Your task to perform on an android device: toggle sleep mode Image 0: 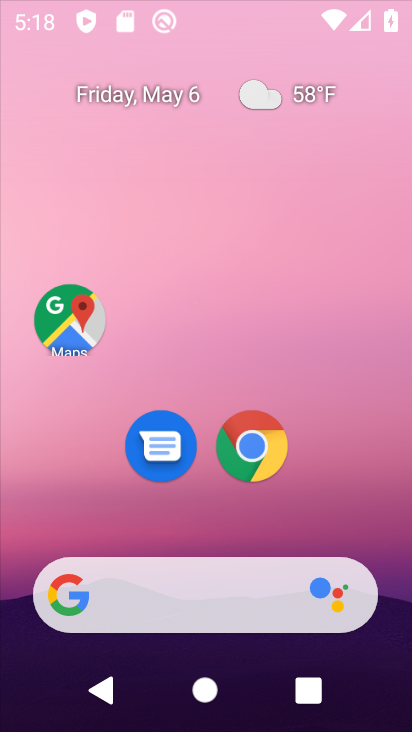
Step 0: click (308, 160)
Your task to perform on an android device: toggle sleep mode Image 1: 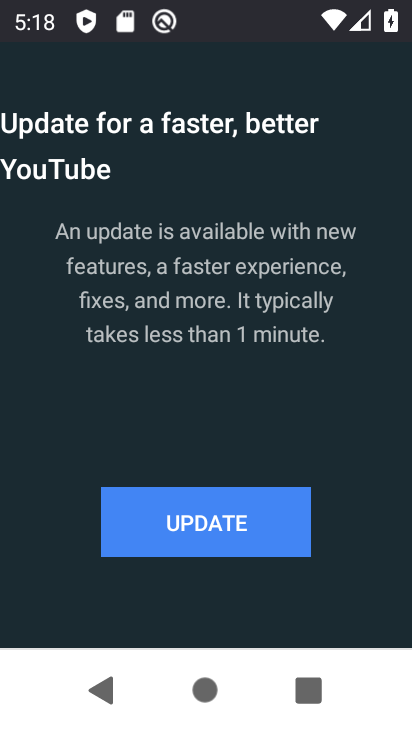
Step 1: press home button
Your task to perform on an android device: toggle sleep mode Image 2: 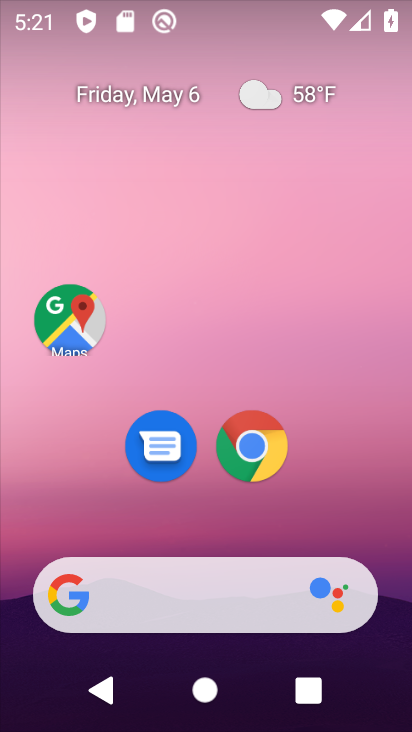
Step 2: drag from (368, 460) to (242, 70)
Your task to perform on an android device: toggle sleep mode Image 3: 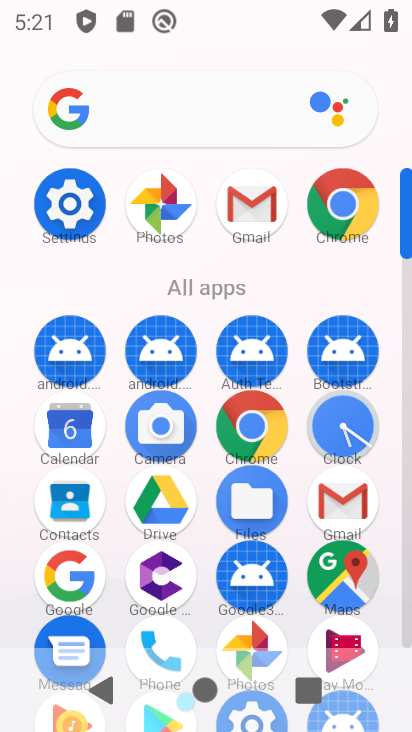
Step 3: click (68, 204)
Your task to perform on an android device: toggle sleep mode Image 4: 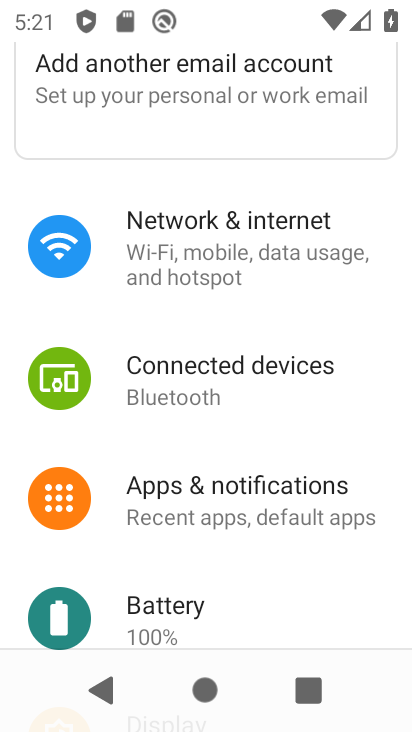
Step 4: drag from (232, 552) to (199, 346)
Your task to perform on an android device: toggle sleep mode Image 5: 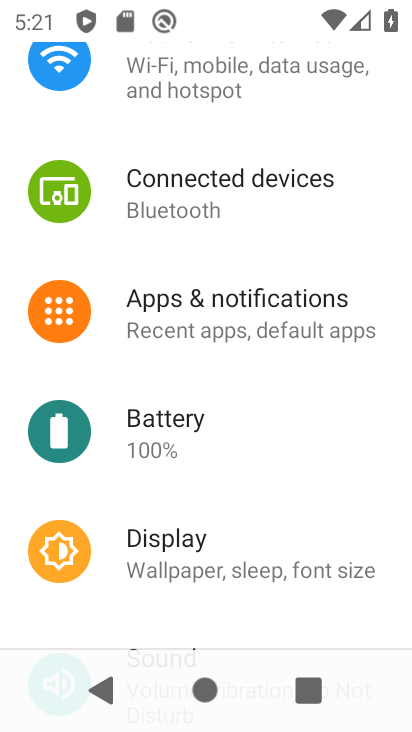
Step 5: click (199, 566)
Your task to perform on an android device: toggle sleep mode Image 6: 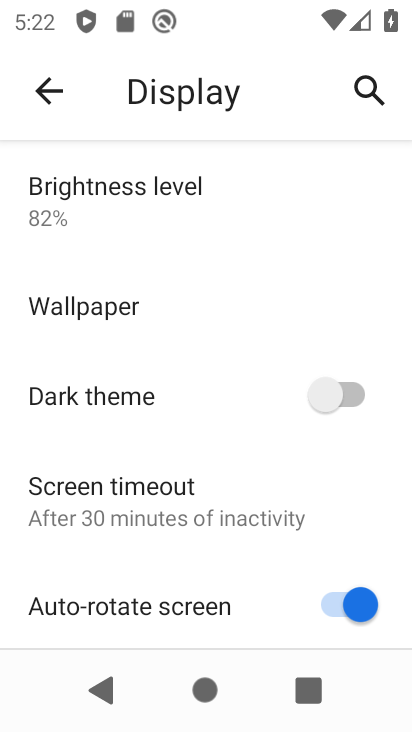
Step 6: task complete